Your task to perform on an android device: check data usage Image 0: 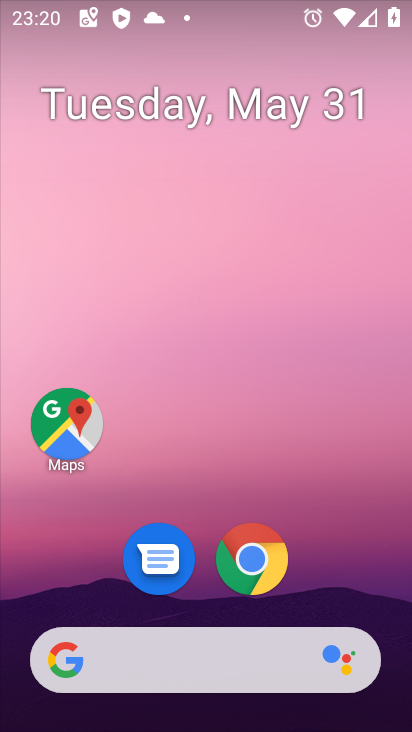
Step 0: drag from (319, 543) to (318, 48)
Your task to perform on an android device: check data usage Image 1: 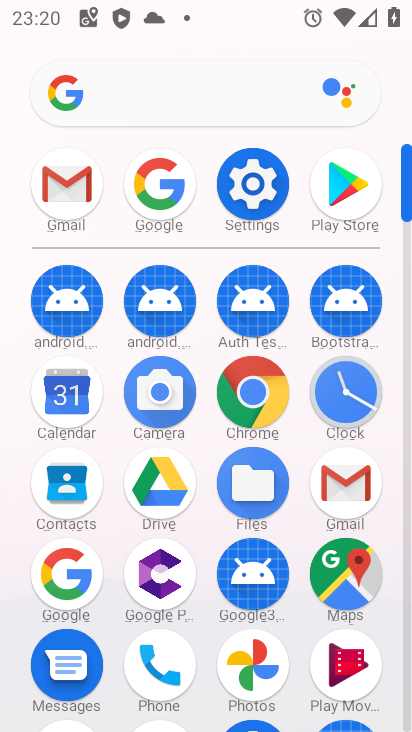
Step 1: click (258, 175)
Your task to perform on an android device: check data usage Image 2: 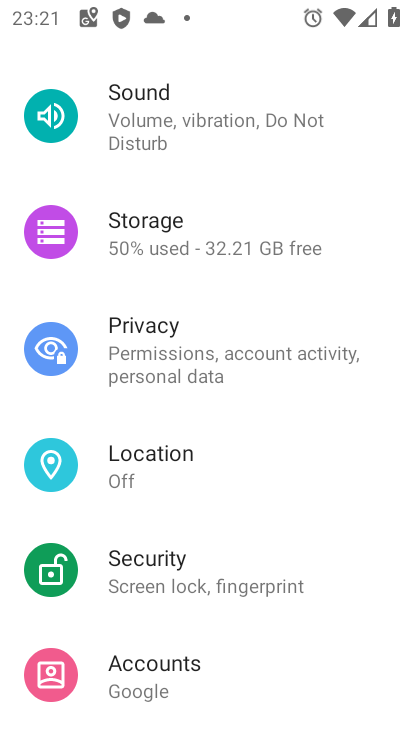
Step 2: drag from (247, 172) to (255, 577)
Your task to perform on an android device: check data usage Image 3: 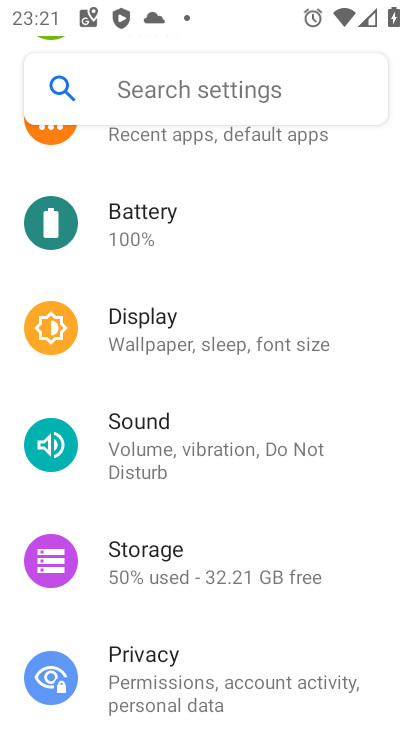
Step 3: drag from (164, 167) to (171, 559)
Your task to perform on an android device: check data usage Image 4: 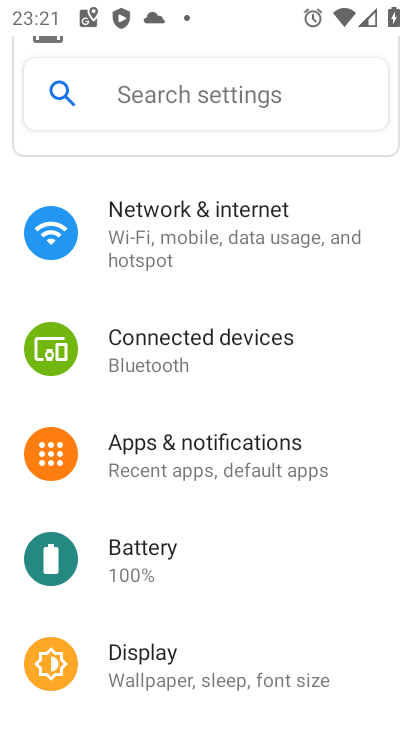
Step 4: click (172, 240)
Your task to perform on an android device: check data usage Image 5: 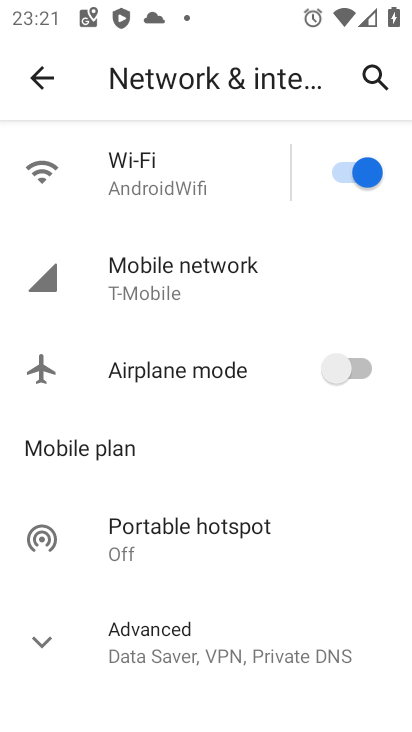
Step 5: click (172, 285)
Your task to perform on an android device: check data usage Image 6: 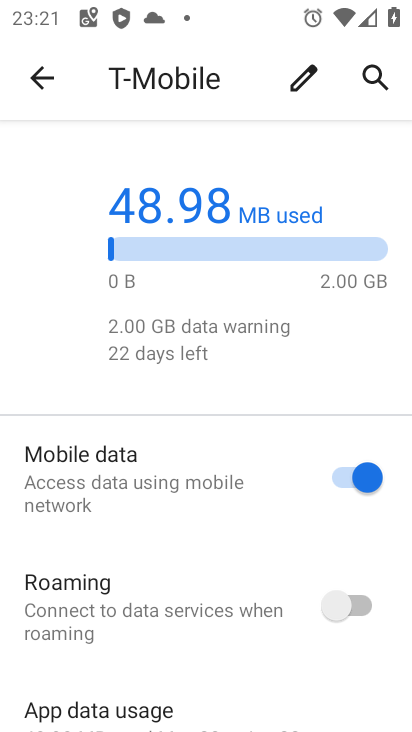
Step 6: task complete